Your task to perform on an android device: What's the weather today? Image 0: 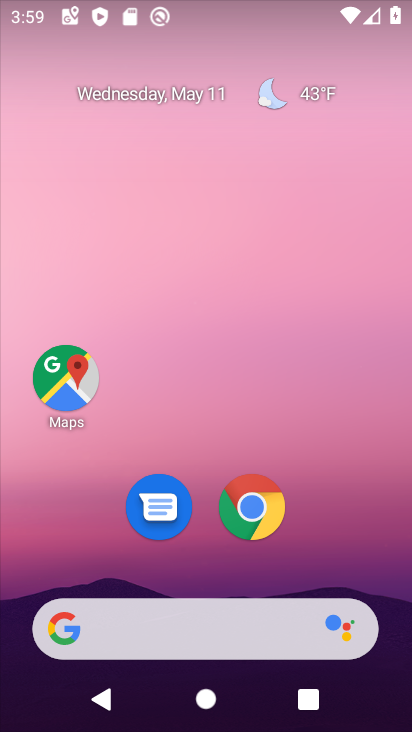
Step 0: drag from (265, 625) to (274, 135)
Your task to perform on an android device: What's the weather today? Image 1: 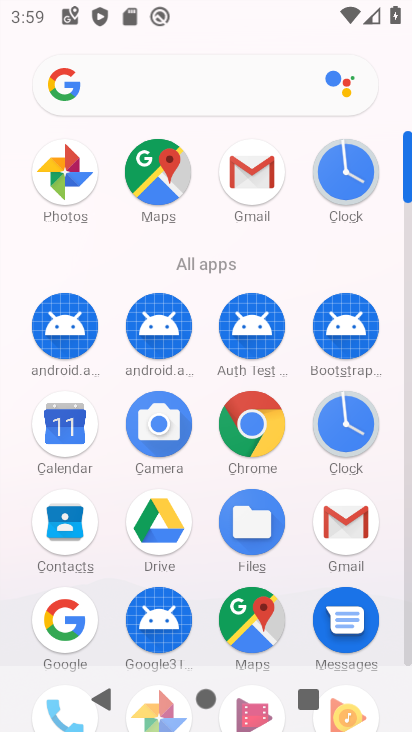
Step 1: drag from (209, 578) to (208, 365)
Your task to perform on an android device: What's the weather today? Image 2: 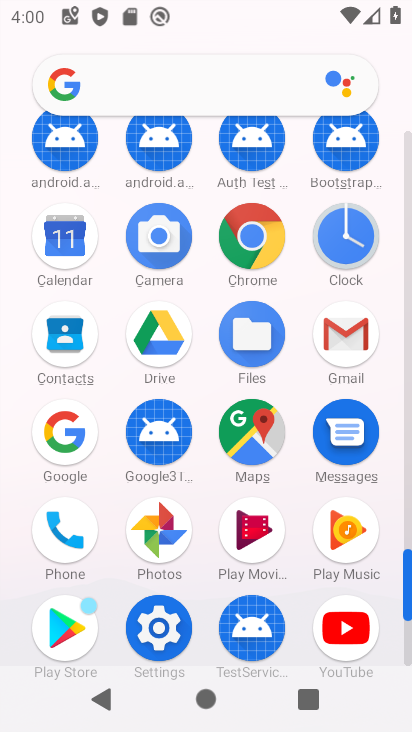
Step 2: click (65, 443)
Your task to perform on an android device: What's the weather today? Image 3: 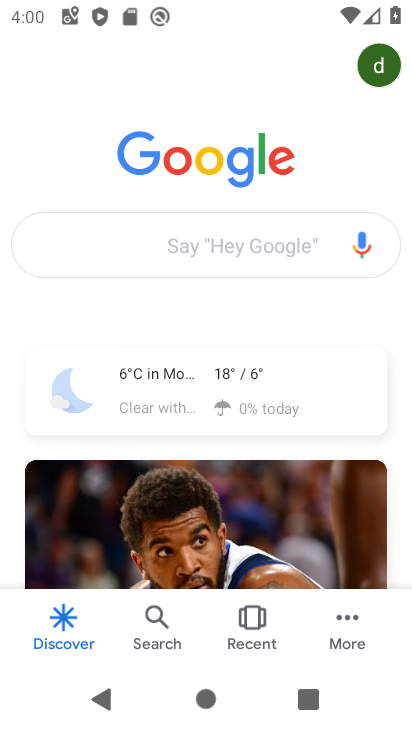
Step 3: click (199, 261)
Your task to perform on an android device: What's the weather today? Image 4: 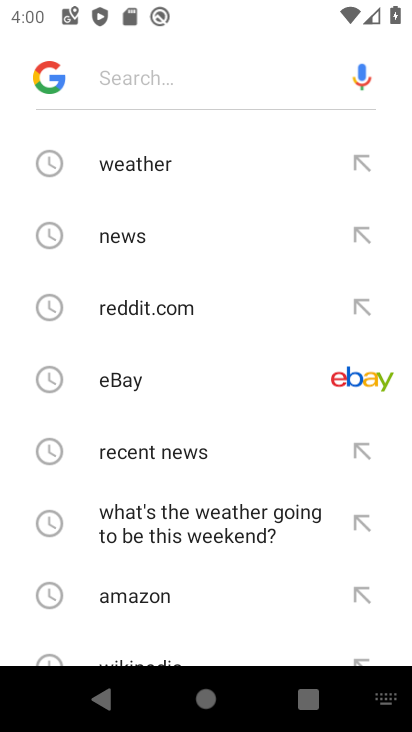
Step 4: click (210, 170)
Your task to perform on an android device: What's the weather today? Image 5: 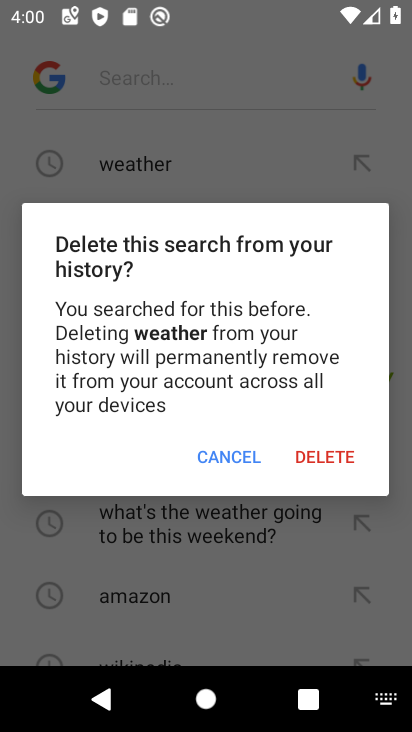
Step 5: click (324, 458)
Your task to perform on an android device: What's the weather today? Image 6: 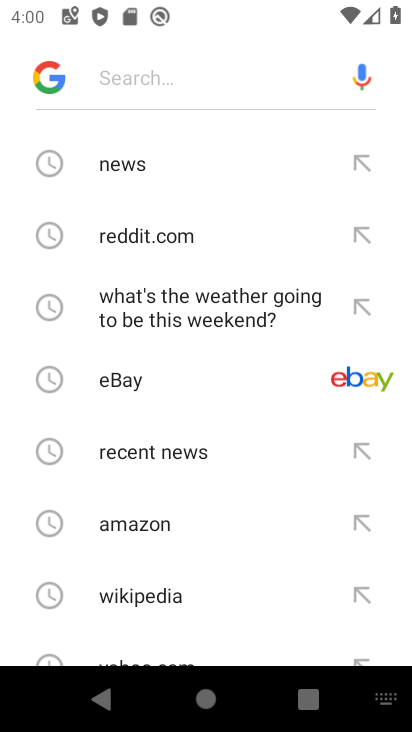
Step 6: click (223, 89)
Your task to perform on an android device: What's the weather today? Image 7: 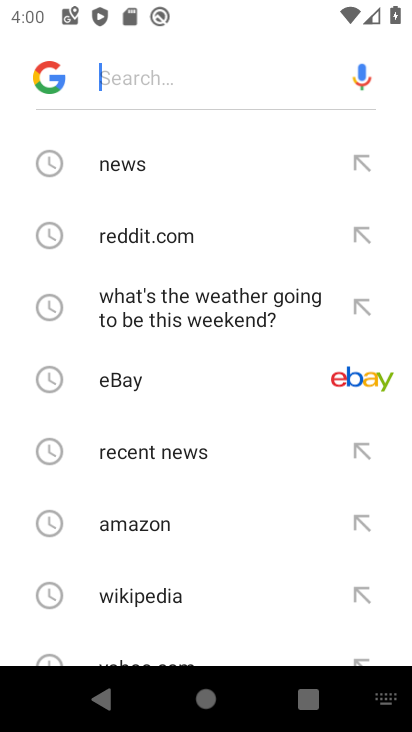
Step 7: type "weather"
Your task to perform on an android device: What's the weather today? Image 8: 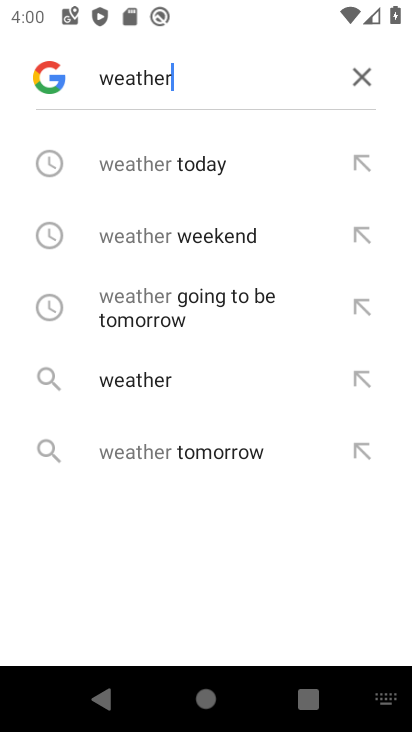
Step 8: click (235, 161)
Your task to perform on an android device: What's the weather today? Image 9: 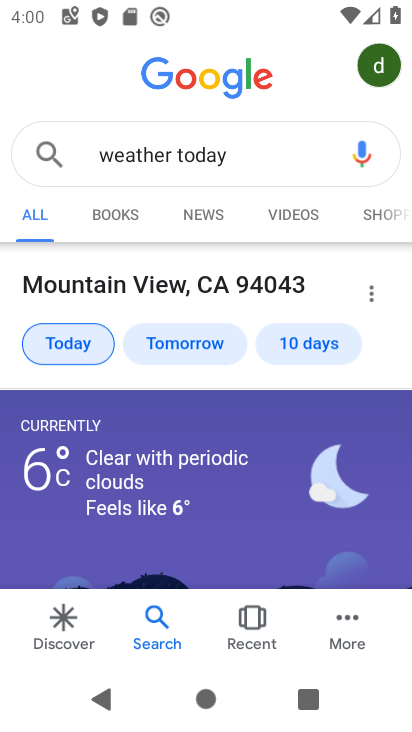
Step 9: task complete